Your task to perform on an android device: turn notification dots off Image 0: 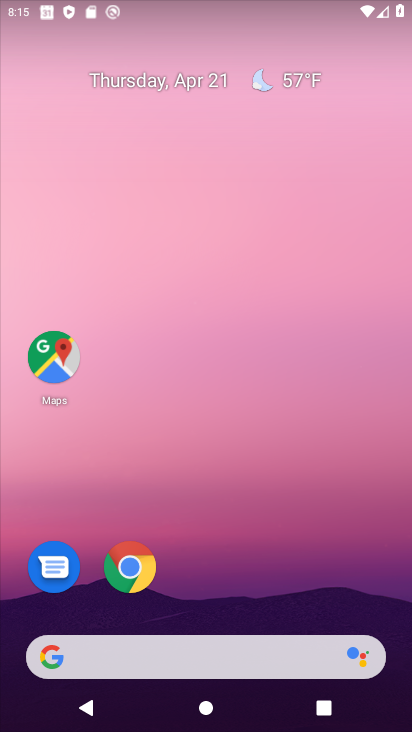
Step 0: drag from (236, 616) to (216, 72)
Your task to perform on an android device: turn notification dots off Image 1: 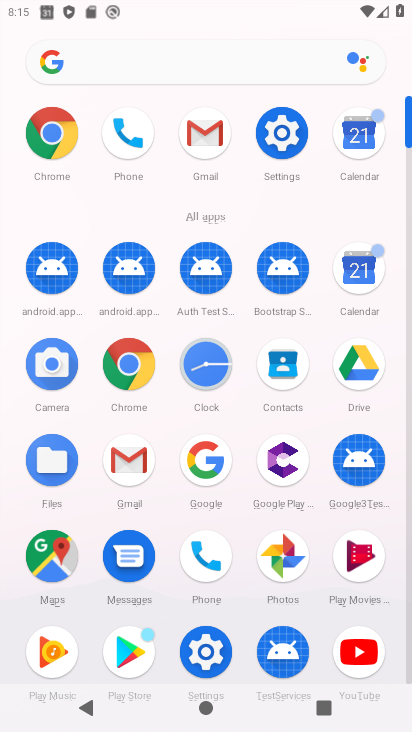
Step 1: click (279, 118)
Your task to perform on an android device: turn notification dots off Image 2: 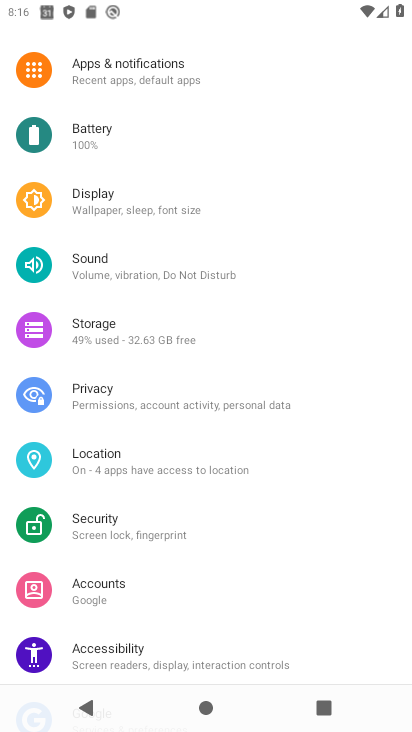
Step 2: click (173, 69)
Your task to perform on an android device: turn notification dots off Image 3: 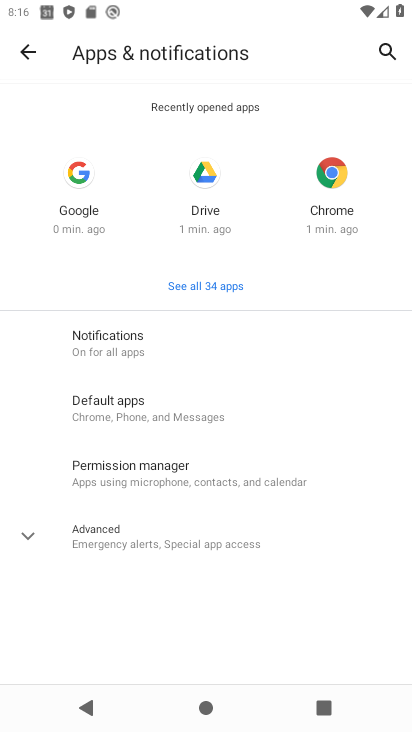
Step 3: click (96, 353)
Your task to perform on an android device: turn notification dots off Image 4: 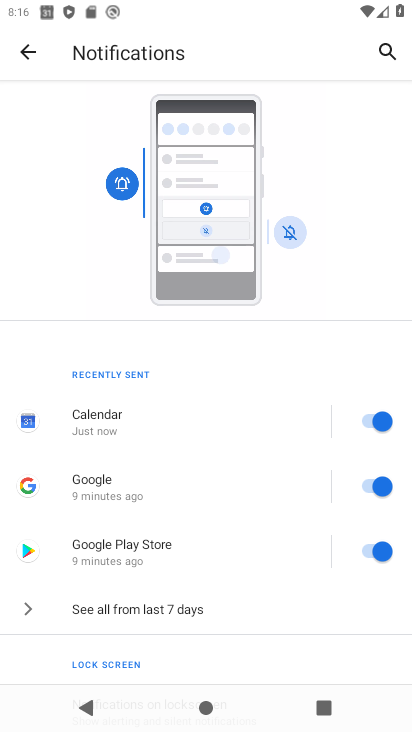
Step 4: drag from (254, 598) to (246, 222)
Your task to perform on an android device: turn notification dots off Image 5: 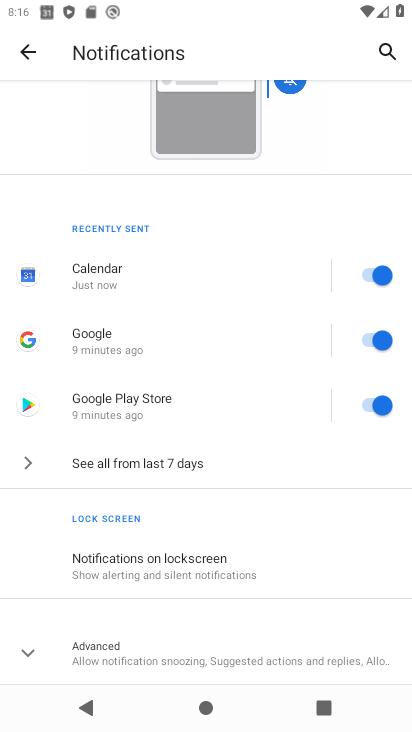
Step 5: click (177, 662)
Your task to perform on an android device: turn notification dots off Image 6: 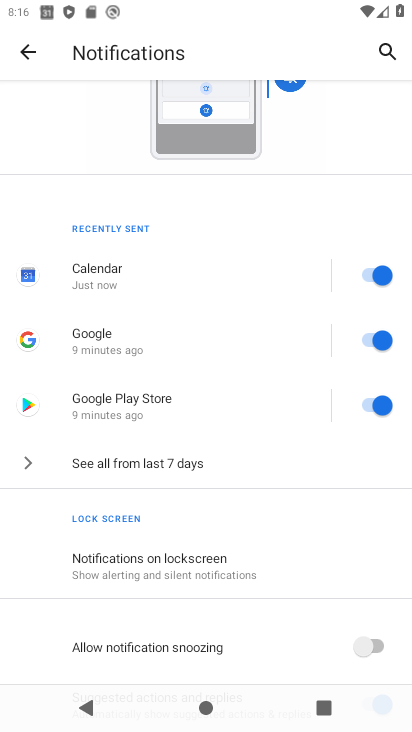
Step 6: drag from (225, 618) to (204, 346)
Your task to perform on an android device: turn notification dots off Image 7: 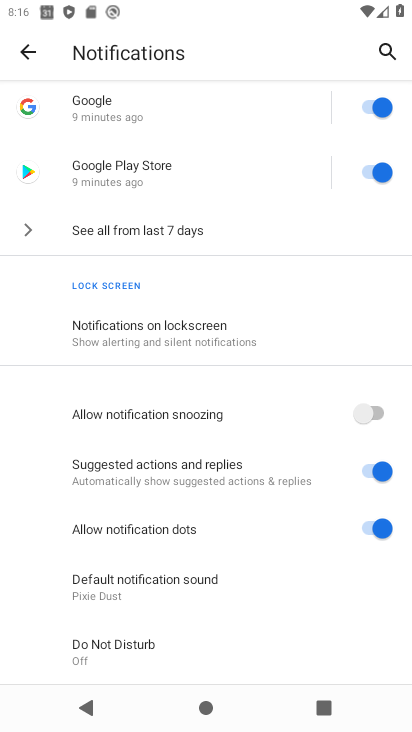
Step 7: click (363, 525)
Your task to perform on an android device: turn notification dots off Image 8: 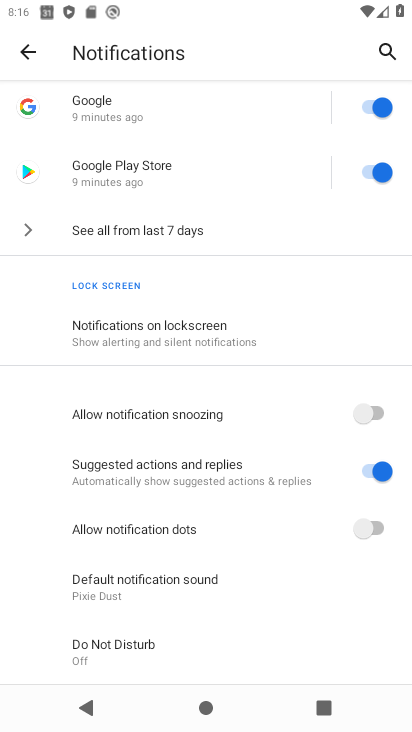
Step 8: task complete